Your task to perform on an android device: Go to Reddit.com Image 0: 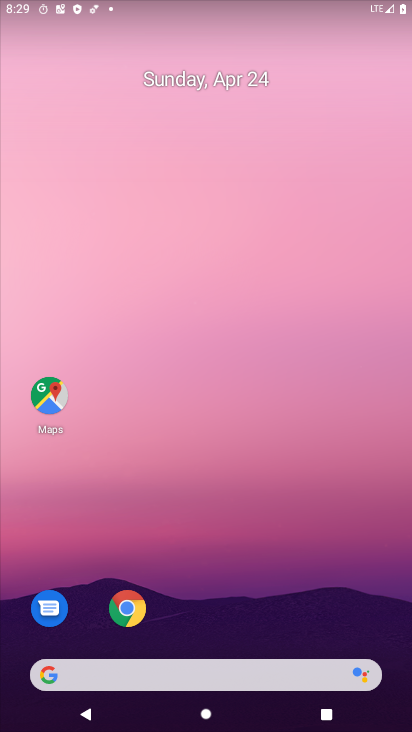
Step 0: click (205, 679)
Your task to perform on an android device: Go to Reddit.com Image 1: 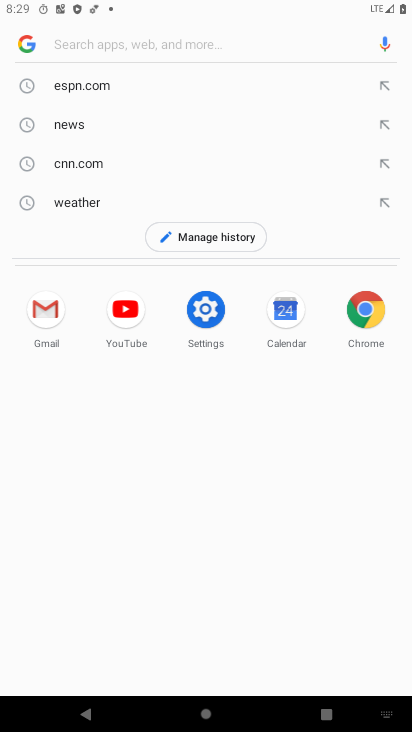
Step 1: type "reddit.com"
Your task to perform on an android device: Go to Reddit.com Image 2: 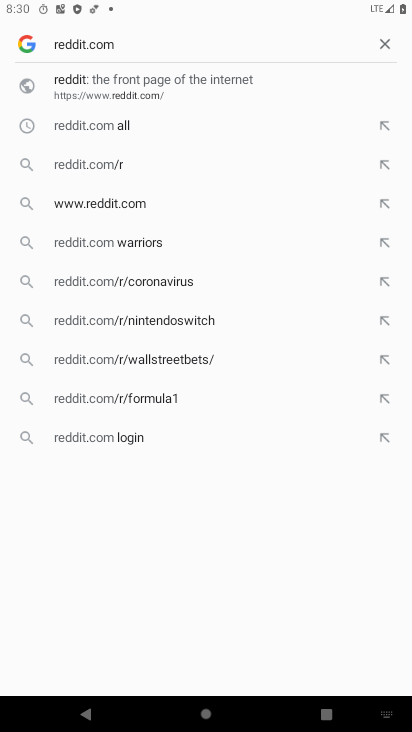
Step 2: click (205, 79)
Your task to perform on an android device: Go to Reddit.com Image 3: 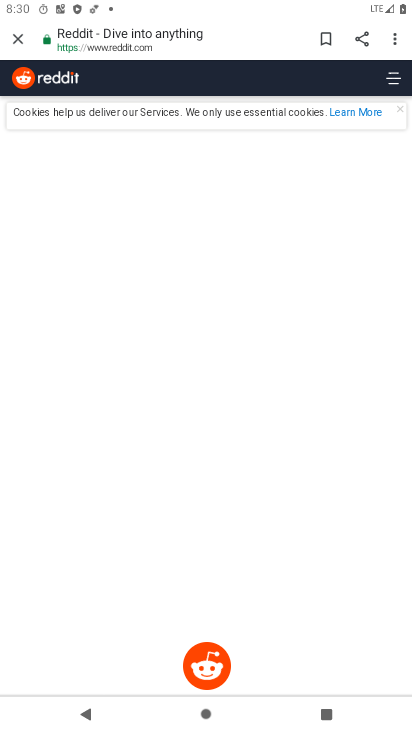
Step 3: task complete